Your task to perform on an android device: turn on priority inbox in the gmail app Image 0: 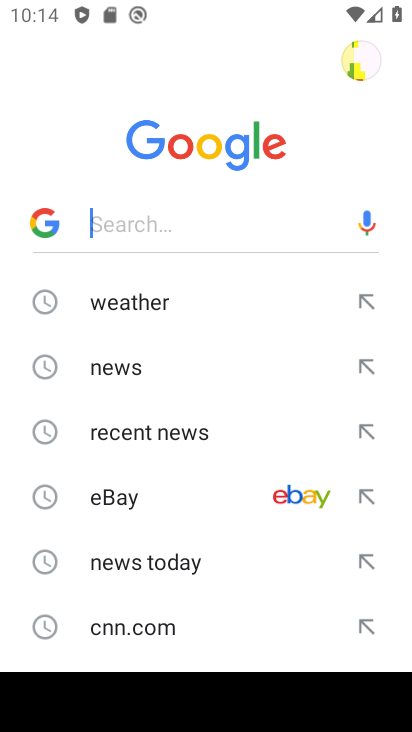
Step 0: press home button
Your task to perform on an android device: turn on priority inbox in the gmail app Image 1: 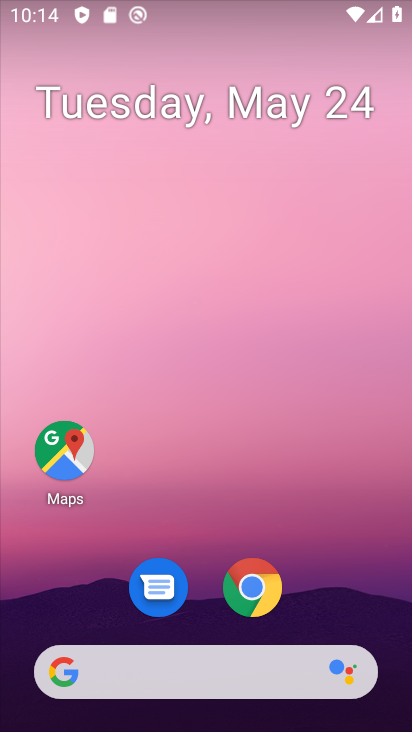
Step 1: drag from (386, 550) to (411, 26)
Your task to perform on an android device: turn on priority inbox in the gmail app Image 2: 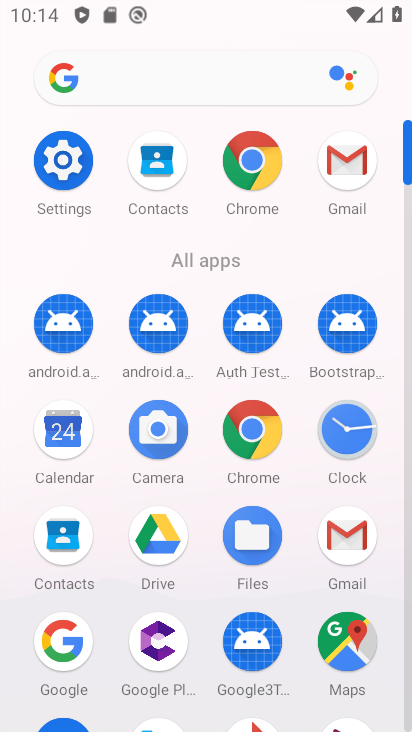
Step 2: click (369, 154)
Your task to perform on an android device: turn on priority inbox in the gmail app Image 3: 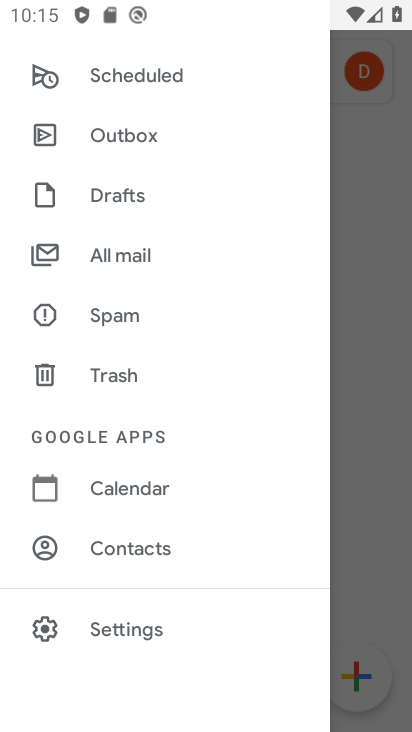
Step 3: click (138, 637)
Your task to perform on an android device: turn on priority inbox in the gmail app Image 4: 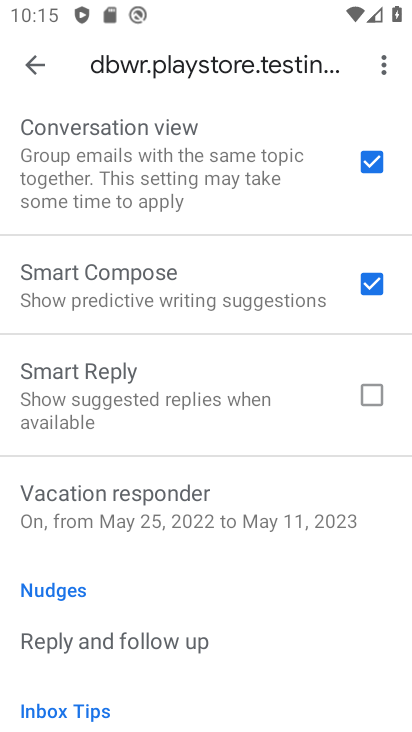
Step 4: drag from (214, 194) to (264, 626)
Your task to perform on an android device: turn on priority inbox in the gmail app Image 5: 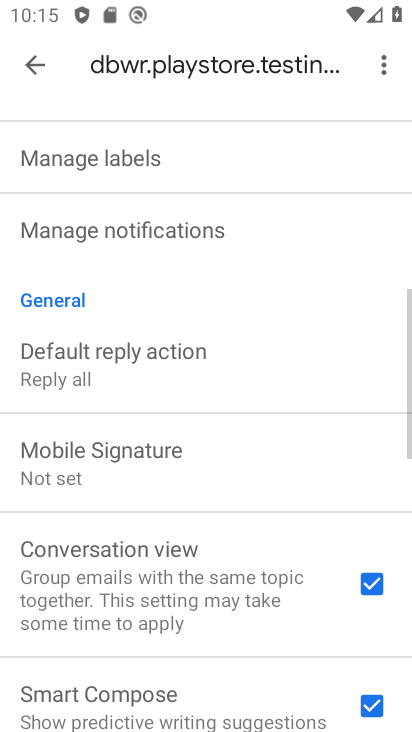
Step 5: drag from (292, 101) to (222, 600)
Your task to perform on an android device: turn on priority inbox in the gmail app Image 6: 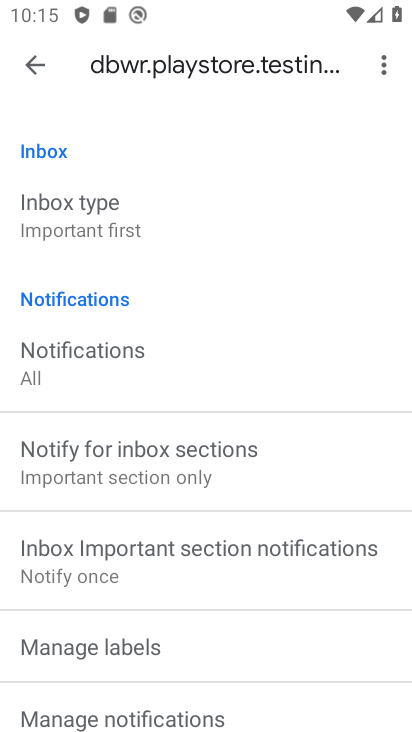
Step 6: click (80, 234)
Your task to perform on an android device: turn on priority inbox in the gmail app Image 7: 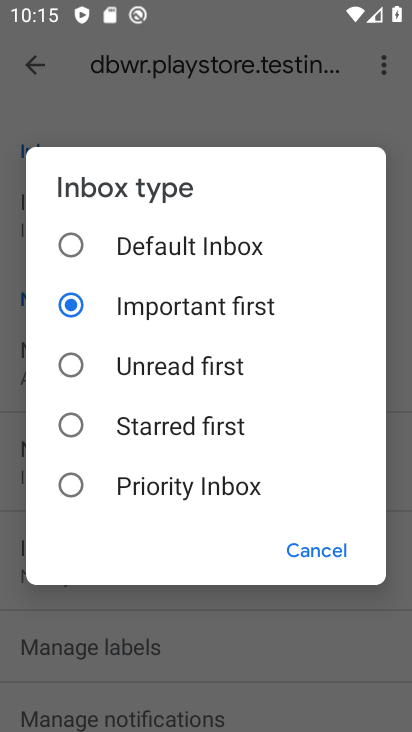
Step 7: click (191, 498)
Your task to perform on an android device: turn on priority inbox in the gmail app Image 8: 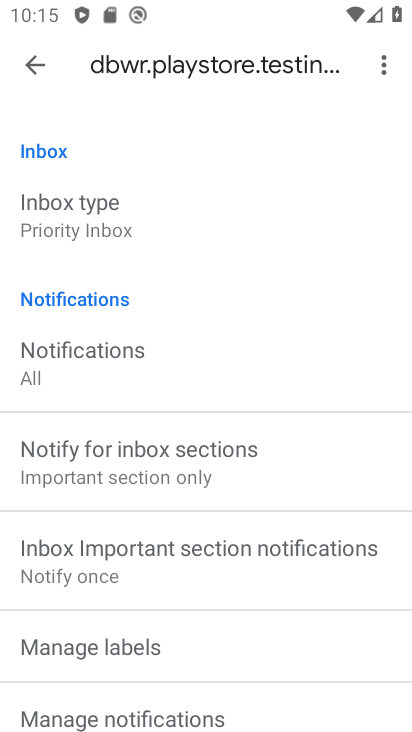
Step 8: task complete